Your task to perform on an android device: turn on data saver in the chrome app Image 0: 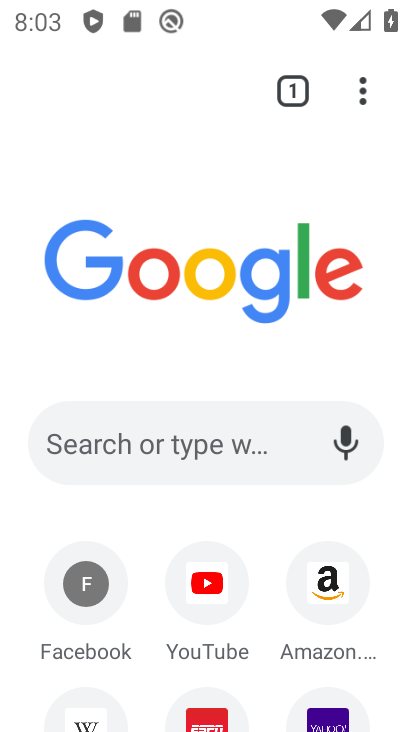
Step 0: click (364, 88)
Your task to perform on an android device: turn on data saver in the chrome app Image 1: 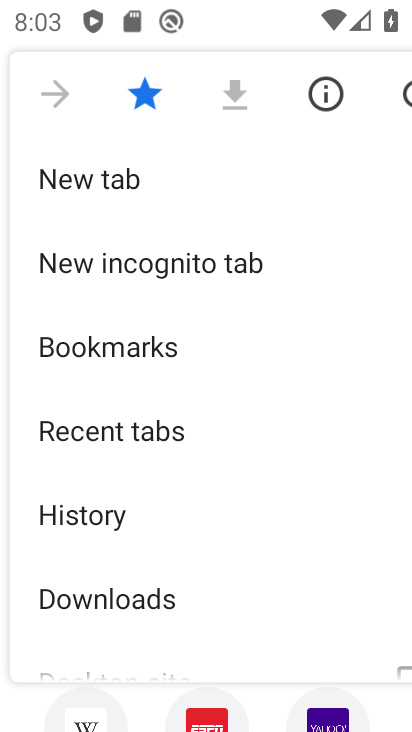
Step 1: drag from (241, 582) to (185, 166)
Your task to perform on an android device: turn on data saver in the chrome app Image 2: 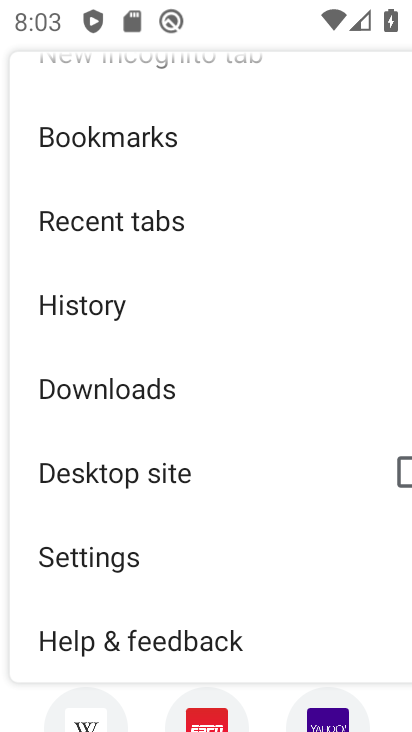
Step 2: click (86, 551)
Your task to perform on an android device: turn on data saver in the chrome app Image 3: 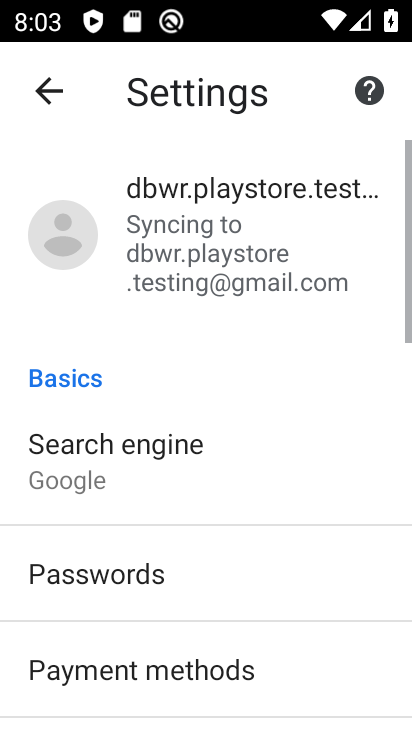
Step 3: drag from (263, 512) to (257, 173)
Your task to perform on an android device: turn on data saver in the chrome app Image 4: 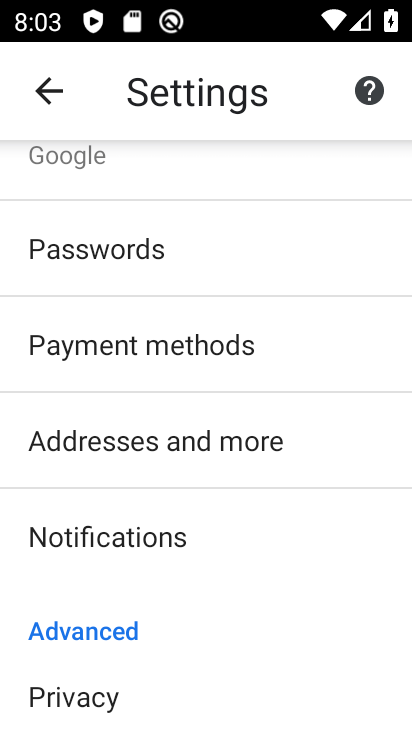
Step 4: drag from (232, 615) to (215, 300)
Your task to perform on an android device: turn on data saver in the chrome app Image 5: 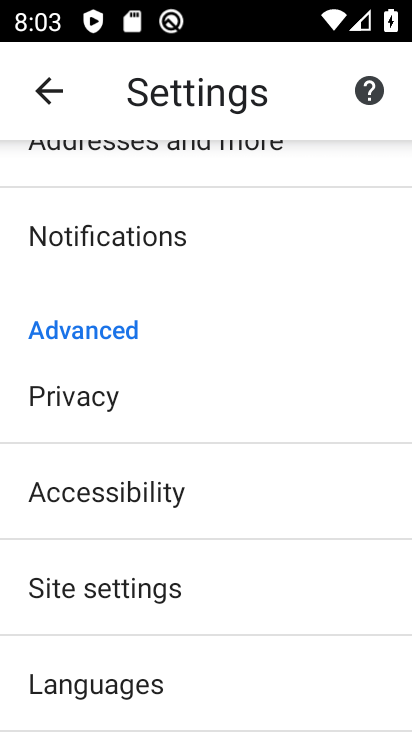
Step 5: drag from (235, 637) to (235, 289)
Your task to perform on an android device: turn on data saver in the chrome app Image 6: 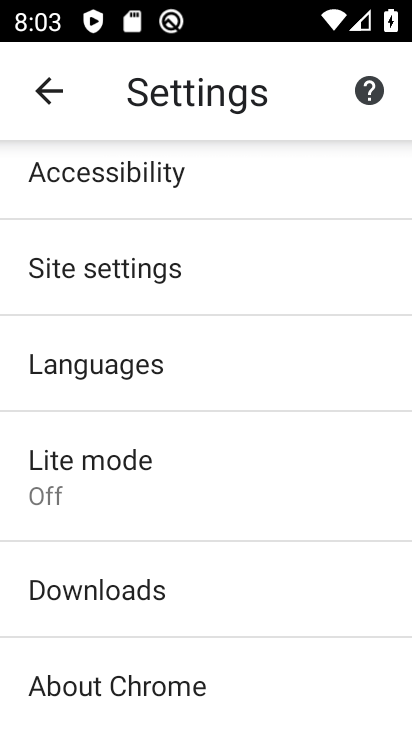
Step 6: click (87, 449)
Your task to perform on an android device: turn on data saver in the chrome app Image 7: 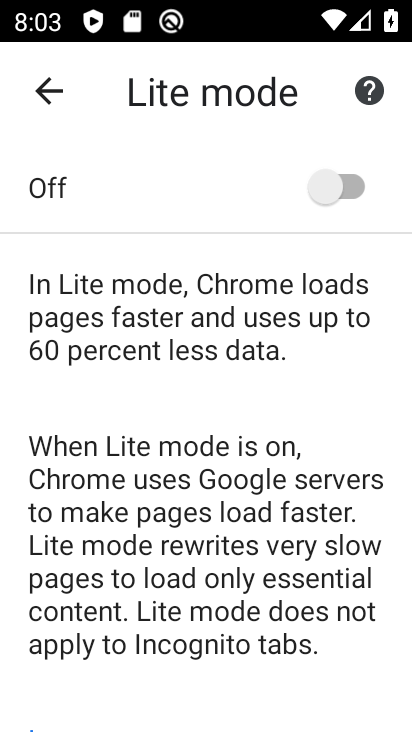
Step 7: click (338, 190)
Your task to perform on an android device: turn on data saver in the chrome app Image 8: 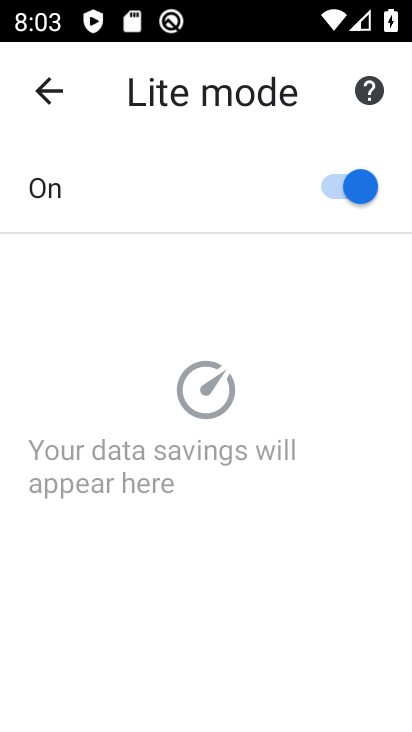
Step 8: task complete